Your task to perform on an android device: Open Youtube and go to "Your channel" Image 0: 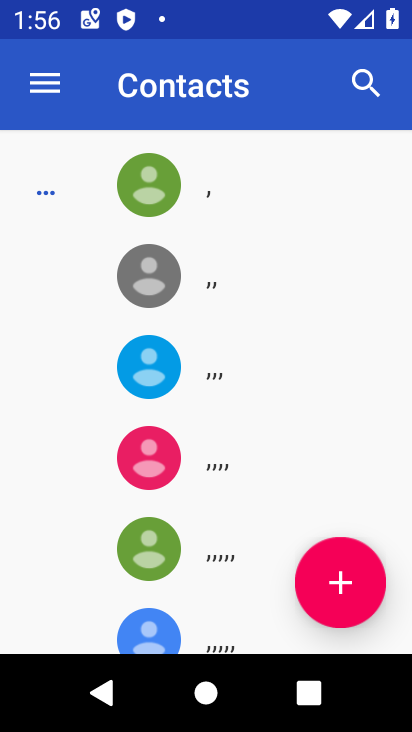
Step 0: press home button
Your task to perform on an android device: Open Youtube and go to "Your channel" Image 1: 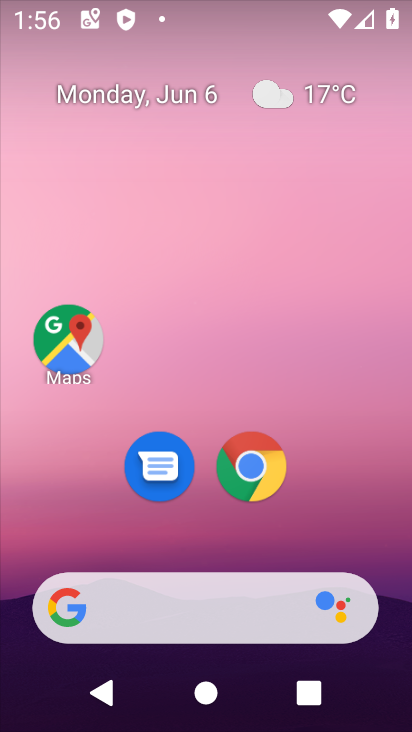
Step 1: drag from (340, 503) to (279, 97)
Your task to perform on an android device: Open Youtube and go to "Your channel" Image 2: 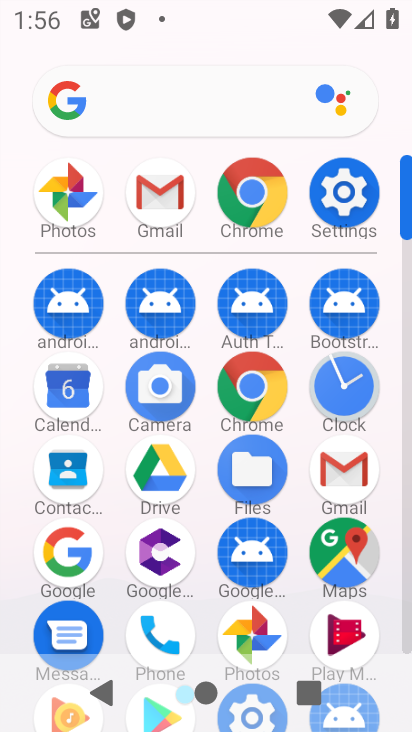
Step 2: drag from (199, 610) to (220, 279)
Your task to perform on an android device: Open Youtube and go to "Your channel" Image 3: 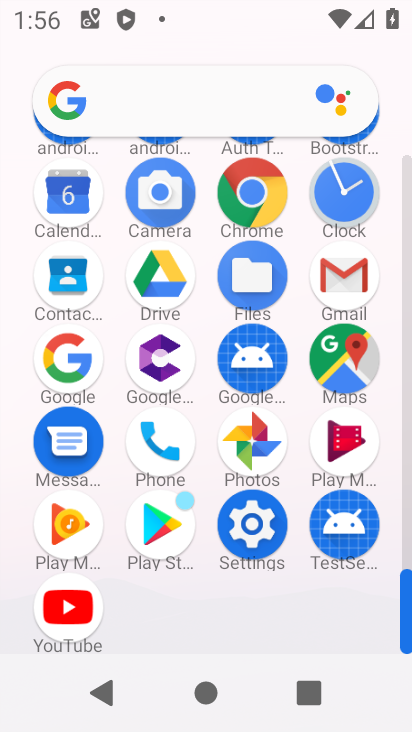
Step 3: click (54, 610)
Your task to perform on an android device: Open Youtube and go to "Your channel" Image 4: 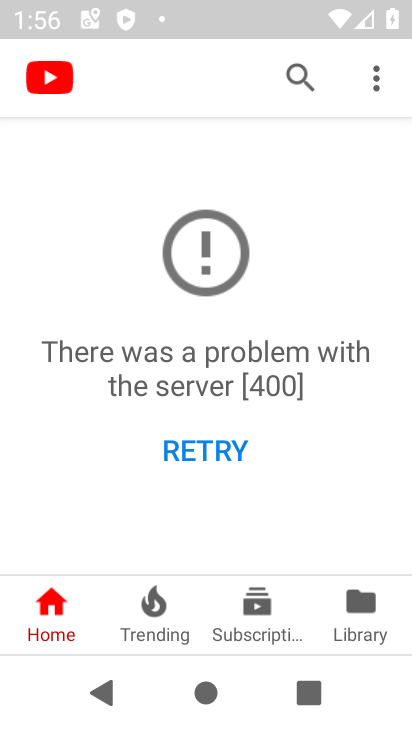
Step 4: click (382, 72)
Your task to perform on an android device: Open Youtube and go to "Your channel" Image 5: 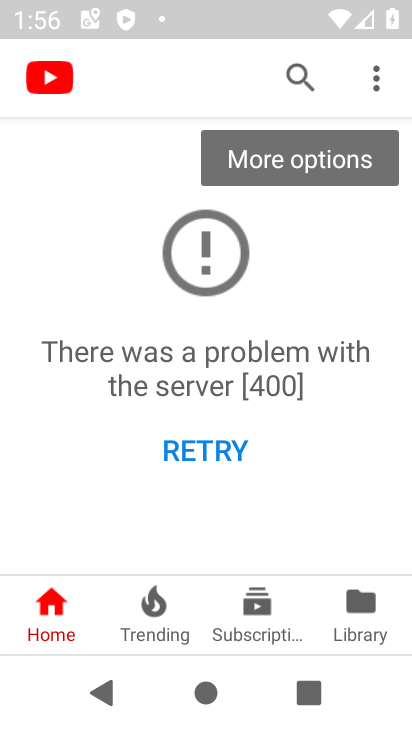
Step 5: click (382, 72)
Your task to perform on an android device: Open Youtube and go to "Your channel" Image 6: 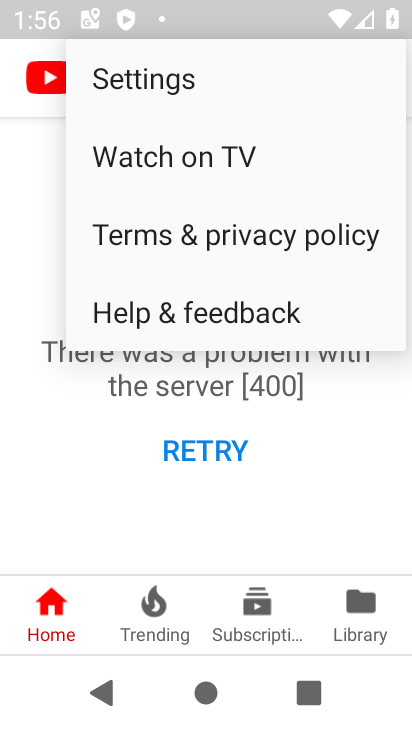
Step 6: click (373, 79)
Your task to perform on an android device: Open Youtube and go to "Your channel" Image 7: 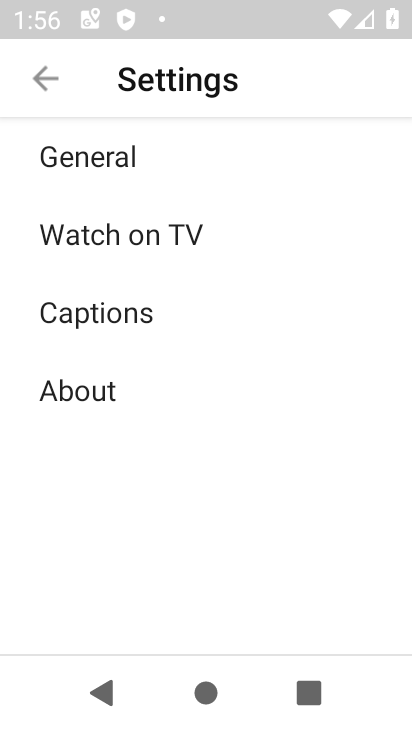
Step 7: click (86, 168)
Your task to perform on an android device: Open Youtube and go to "Your channel" Image 8: 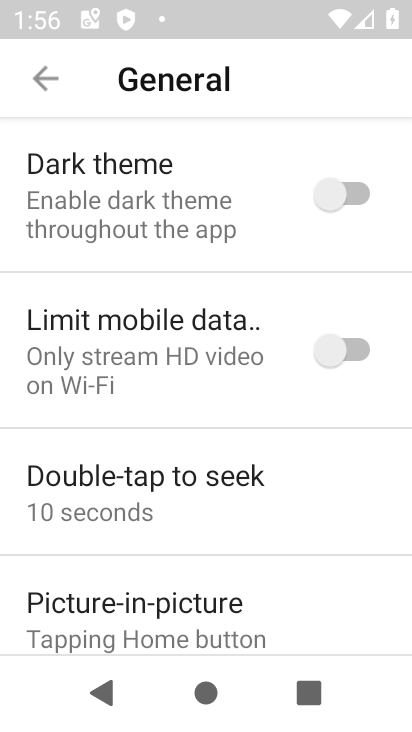
Step 8: click (42, 68)
Your task to perform on an android device: Open Youtube and go to "Your channel" Image 9: 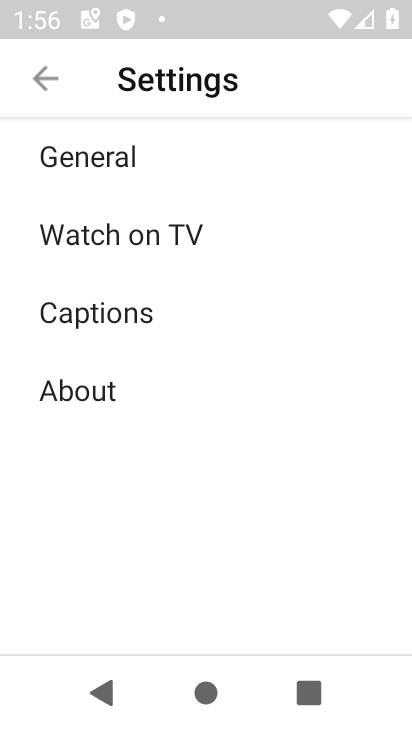
Step 9: click (102, 702)
Your task to perform on an android device: Open Youtube and go to "Your channel" Image 10: 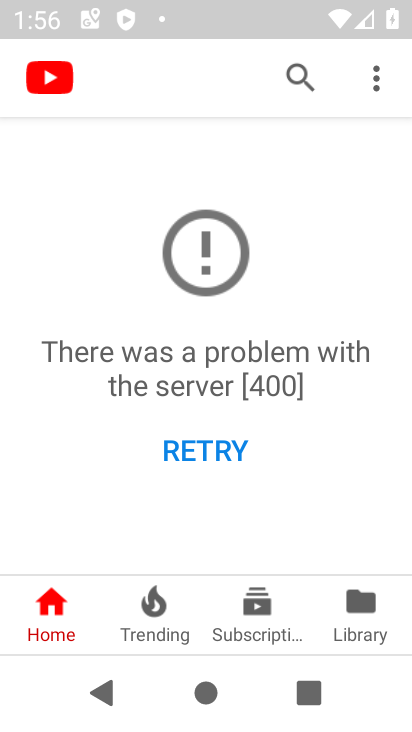
Step 10: click (367, 616)
Your task to perform on an android device: Open Youtube and go to "Your channel" Image 11: 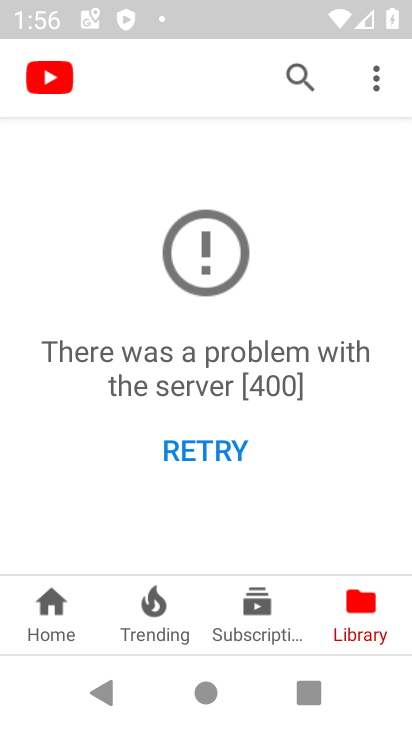
Step 11: click (218, 451)
Your task to perform on an android device: Open Youtube and go to "Your channel" Image 12: 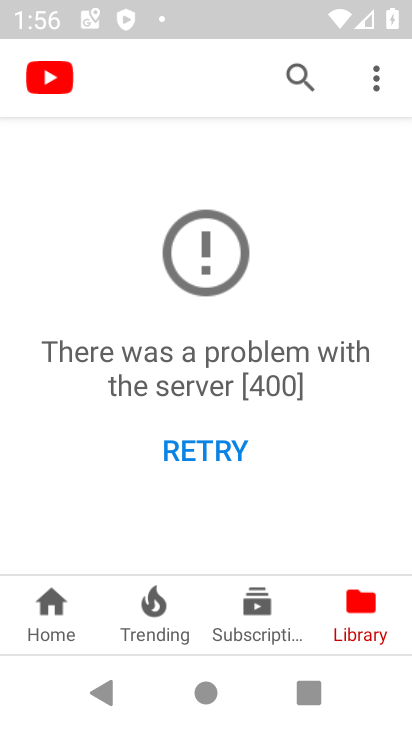
Step 12: click (218, 451)
Your task to perform on an android device: Open Youtube and go to "Your channel" Image 13: 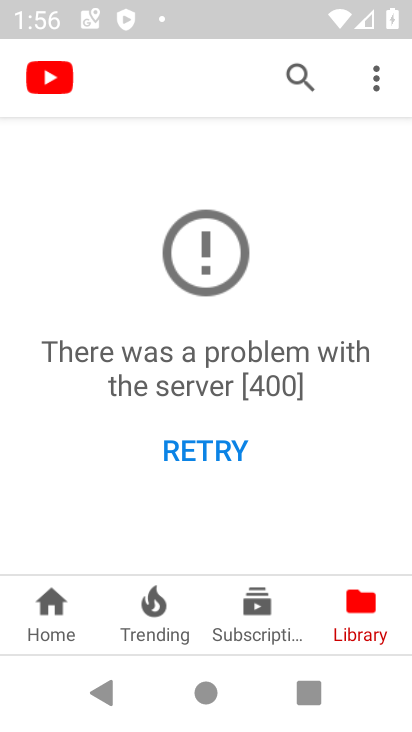
Step 13: task complete